Your task to perform on an android device: check storage Image 0: 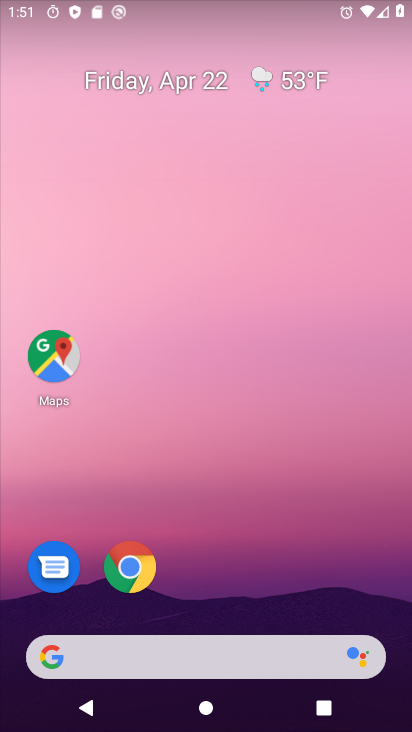
Step 0: drag from (306, 561) to (331, 70)
Your task to perform on an android device: check storage Image 1: 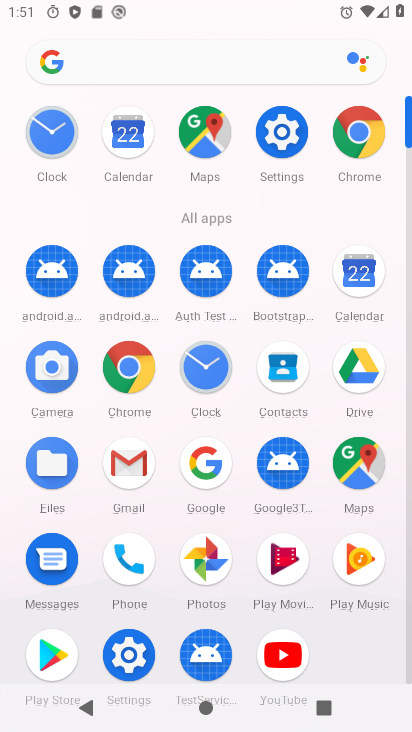
Step 1: click (283, 128)
Your task to perform on an android device: check storage Image 2: 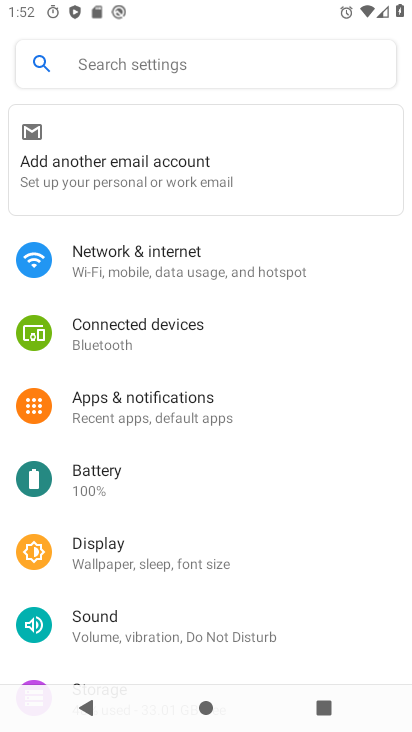
Step 2: drag from (229, 541) to (265, 157)
Your task to perform on an android device: check storage Image 3: 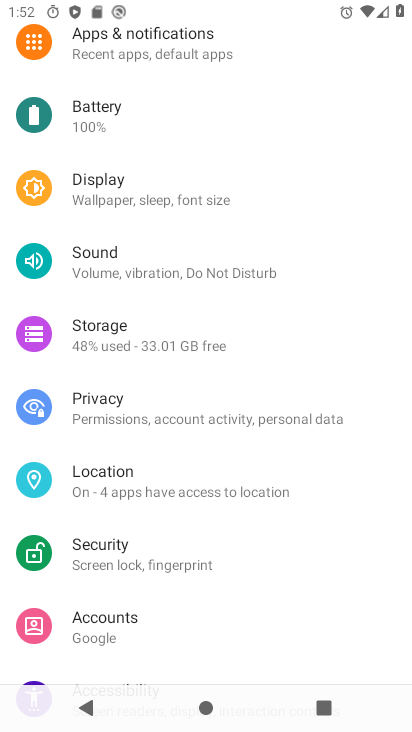
Step 3: click (158, 334)
Your task to perform on an android device: check storage Image 4: 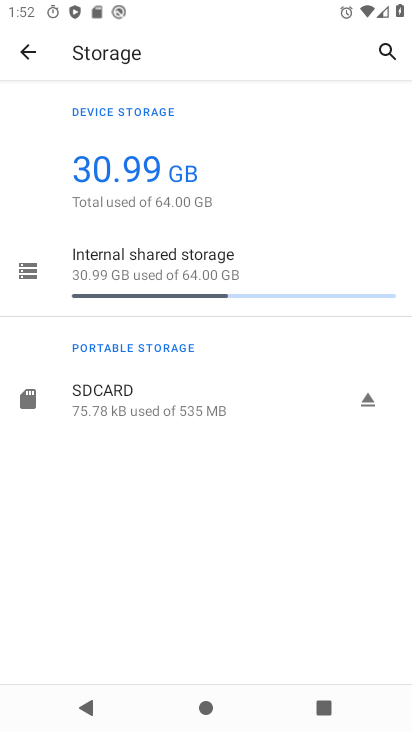
Step 4: task complete